Your task to perform on an android device: move a message to another label in the gmail app Image 0: 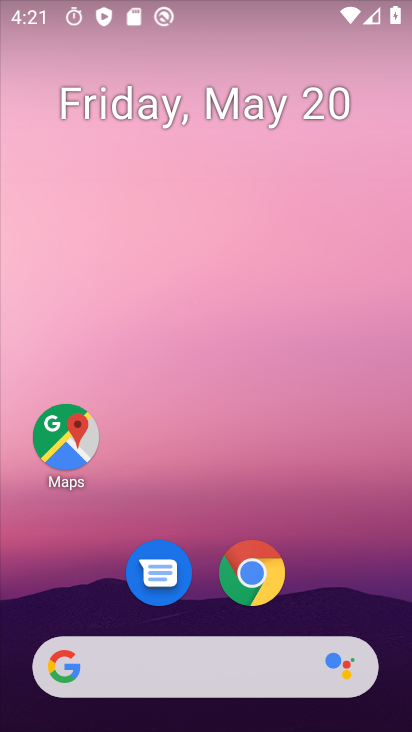
Step 0: drag from (310, 711) to (102, 0)
Your task to perform on an android device: move a message to another label in the gmail app Image 1: 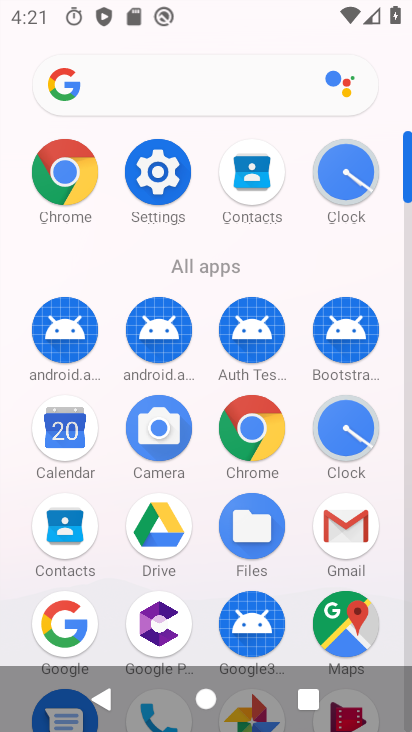
Step 1: click (349, 527)
Your task to perform on an android device: move a message to another label in the gmail app Image 2: 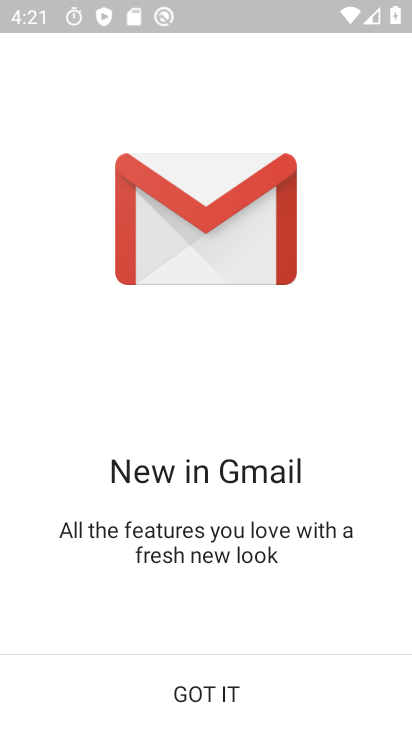
Step 2: click (212, 691)
Your task to perform on an android device: move a message to another label in the gmail app Image 3: 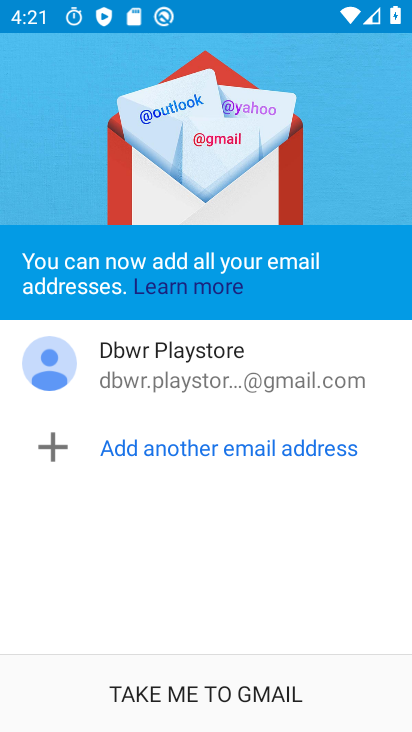
Step 3: click (212, 691)
Your task to perform on an android device: move a message to another label in the gmail app Image 4: 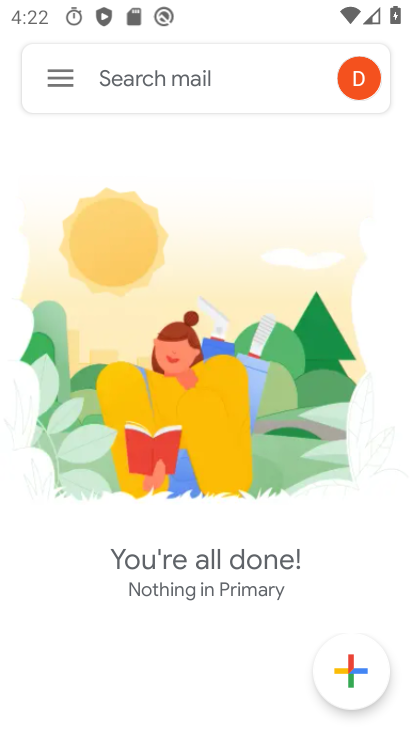
Step 4: click (63, 70)
Your task to perform on an android device: move a message to another label in the gmail app Image 5: 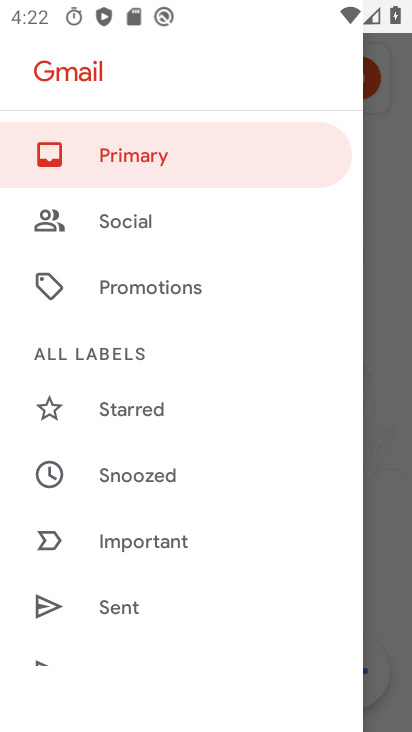
Step 5: drag from (175, 575) to (175, 213)
Your task to perform on an android device: move a message to another label in the gmail app Image 6: 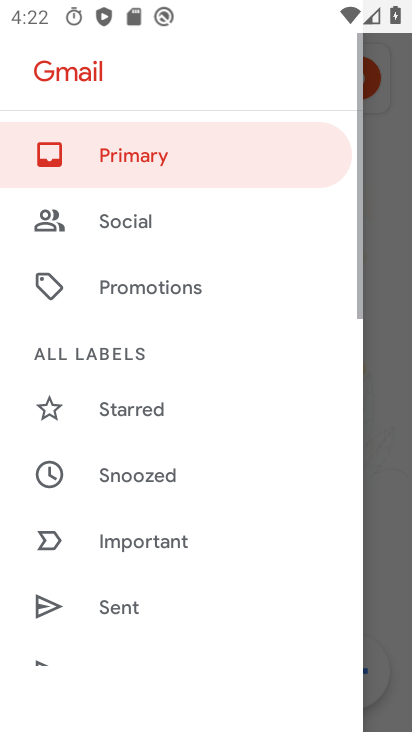
Step 6: drag from (206, 528) to (204, 118)
Your task to perform on an android device: move a message to another label in the gmail app Image 7: 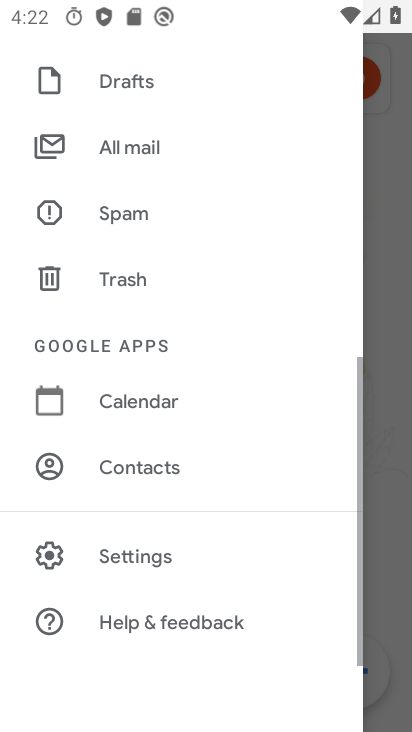
Step 7: drag from (146, 539) to (158, 239)
Your task to perform on an android device: move a message to another label in the gmail app Image 8: 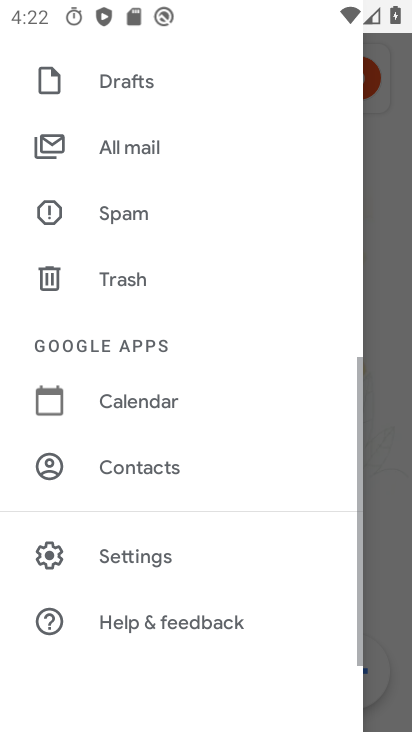
Step 8: click (138, 557)
Your task to perform on an android device: move a message to another label in the gmail app Image 9: 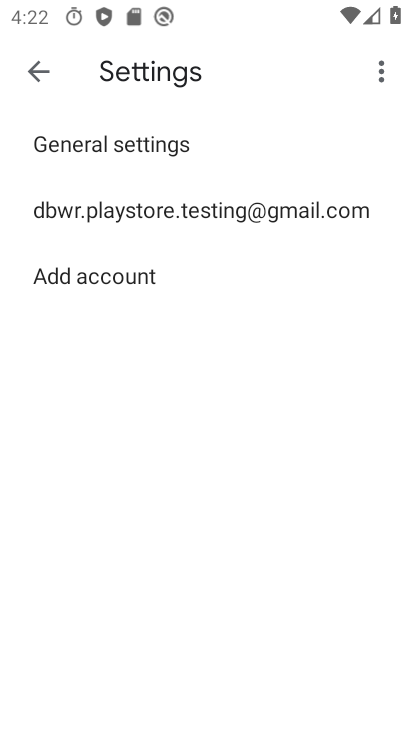
Step 9: click (35, 64)
Your task to perform on an android device: move a message to another label in the gmail app Image 10: 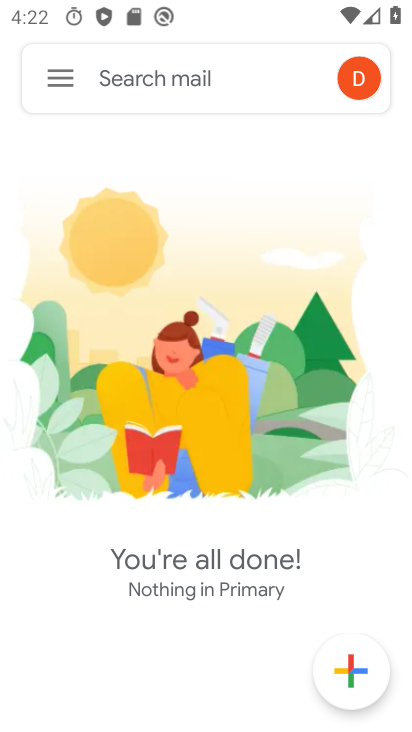
Step 10: click (57, 74)
Your task to perform on an android device: move a message to another label in the gmail app Image 11: 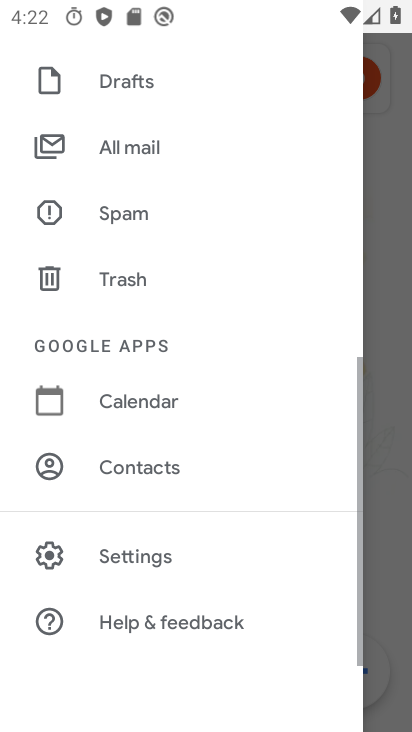
Step 11: click (140, 154)
Your task to perform on an android device: move a message to another label in the gmail app Image 12: 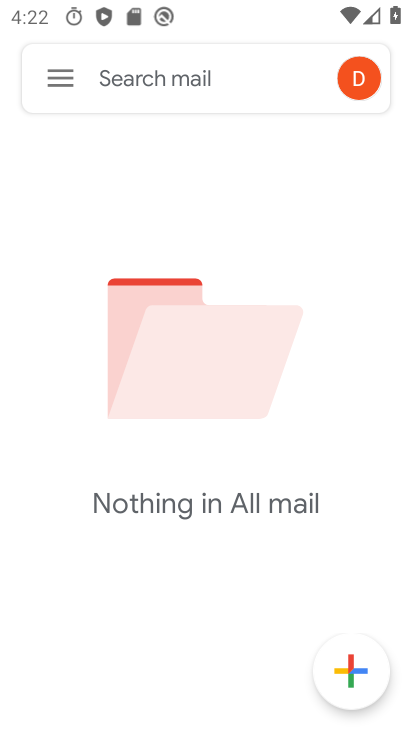
Step 12: task complete